Your task to perform on an android device: Check the news Image 0: 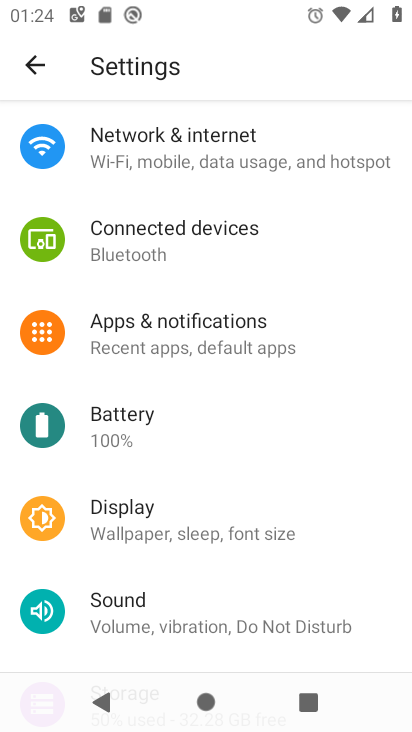
Step 0: press home button
Your task to perform on an android device: Check the news Image 1: 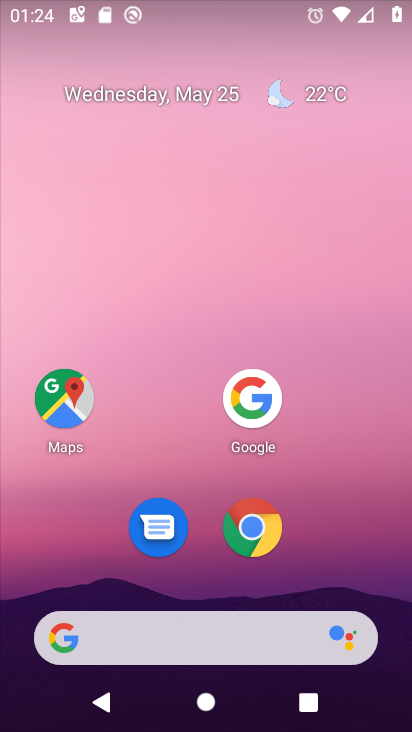
Step 1: click (69, 639)
Your task to perform on an android device: Check the news Image 2: 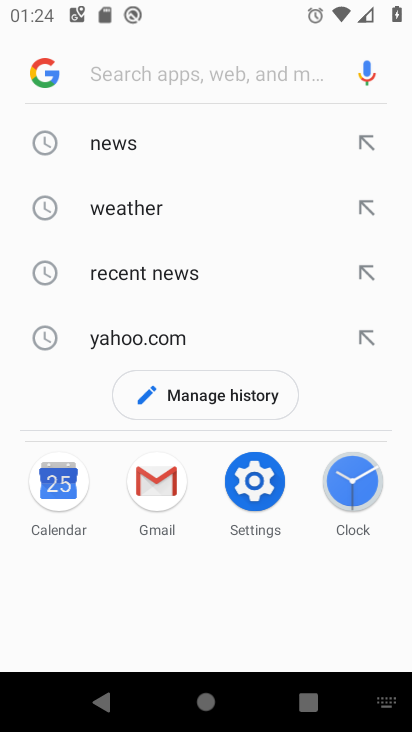
Step 2: click (123, 146)
Your task to perform on an android device: Check the news Image 3: 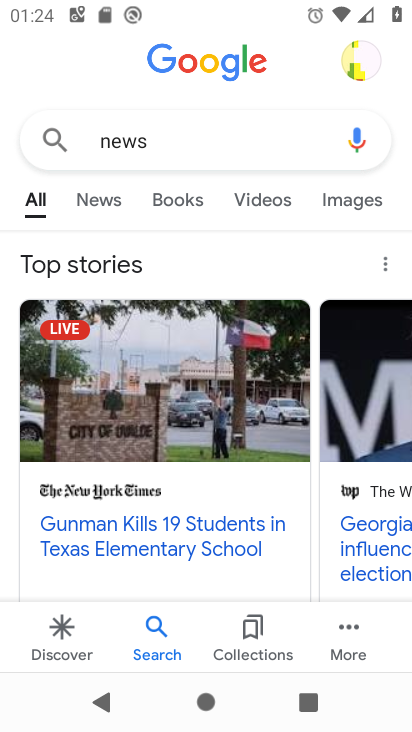
Step 3: click (109, 201)
Your task to perform on an android device: Check the news Image 4: 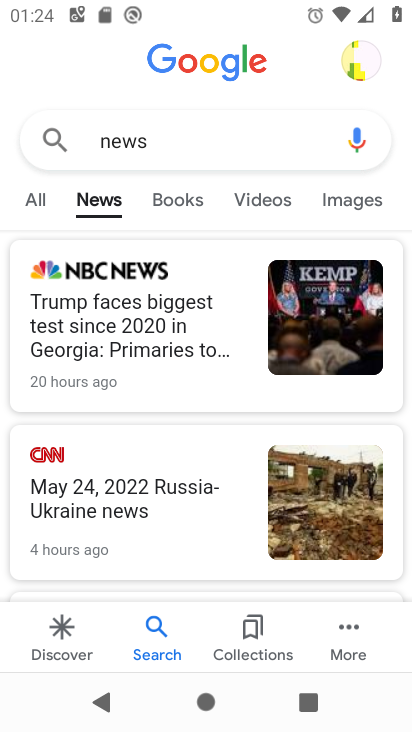
Step 4: task complete